Your task to perform on an android device: toggle priority inbox in the gmail app Image 0: 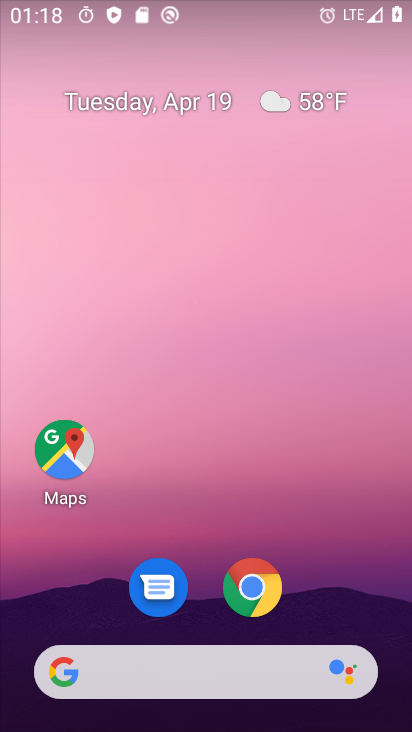
Step 0: drag from (330, 586) to (353, 122)
Your task to perform on an android device: toggle priority inbox in the gmail app Image 1: 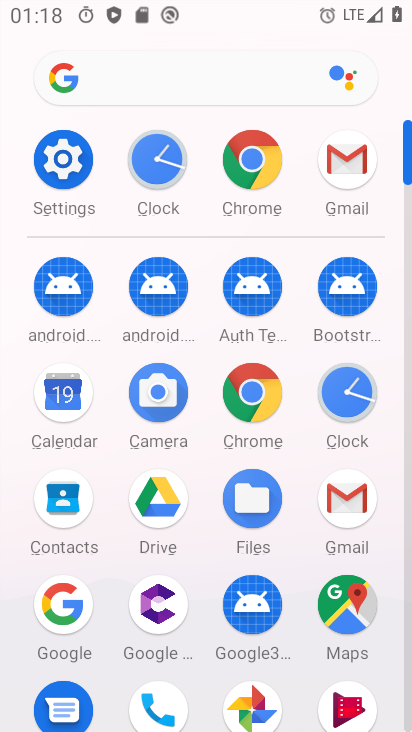
Step 1: click (336, 506)
Your task to perform on an android device: toggle priority inbox in the gmail app Image 2: 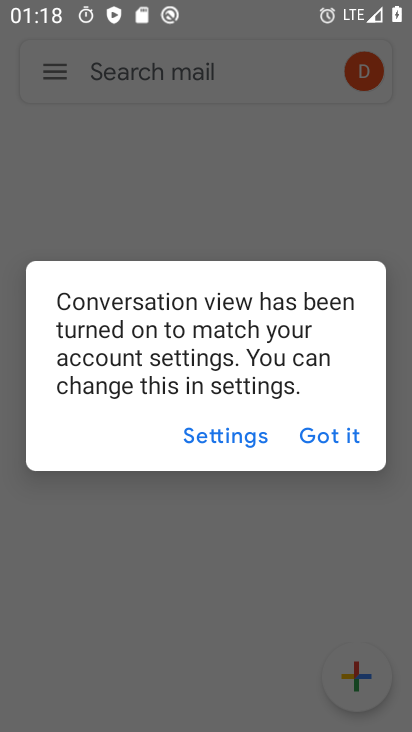
Step 2: click (349, 440)
Your task to perform on an android device: toggle priority inbox in the gmail app Image 3: 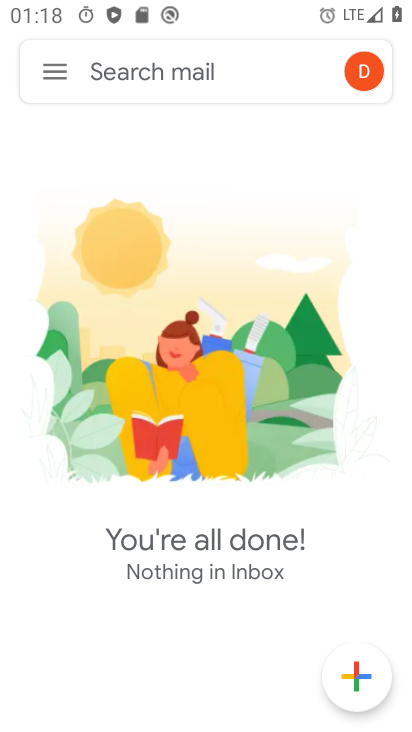
Step 3: click (40, 67)
Your task to perform on an android device: toggle priority inbox in the gmail app Image 4: 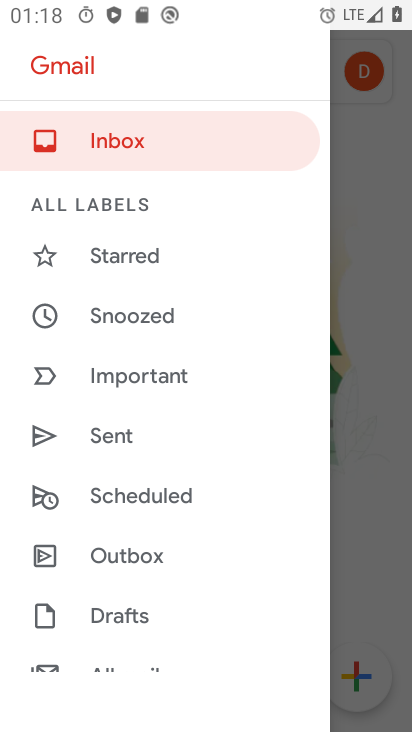
Step 4: drag from (186, 588) to (195, 310)
Your task to perform on an android device: toggle priority inbox in the gmail app Image 5: 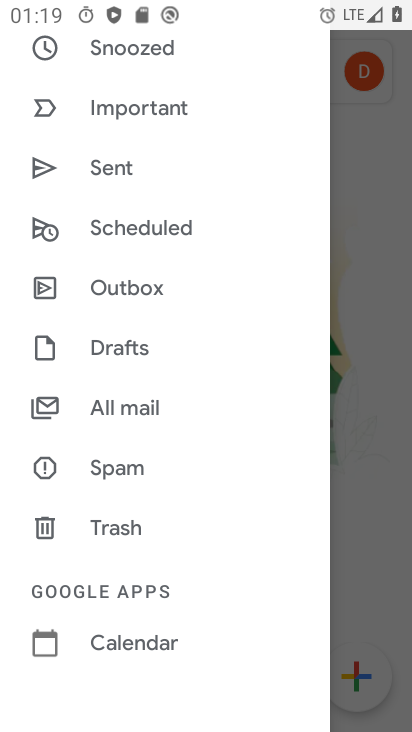
Step 5: drag from (260, 615) to (238, 230)
Your task to perform on an android device: toggle priority inbox in the gmail app Image 6: 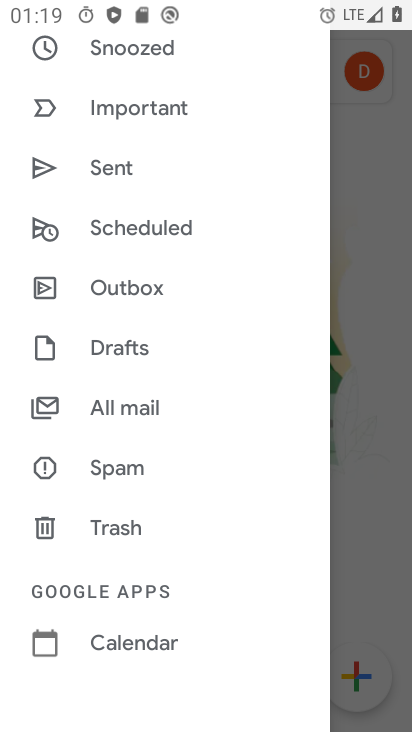
Step 6: drag from (142, 579) to (209, 310)
Your task to perform on an android device: toggle priority inbox in the gmail app Image 7: 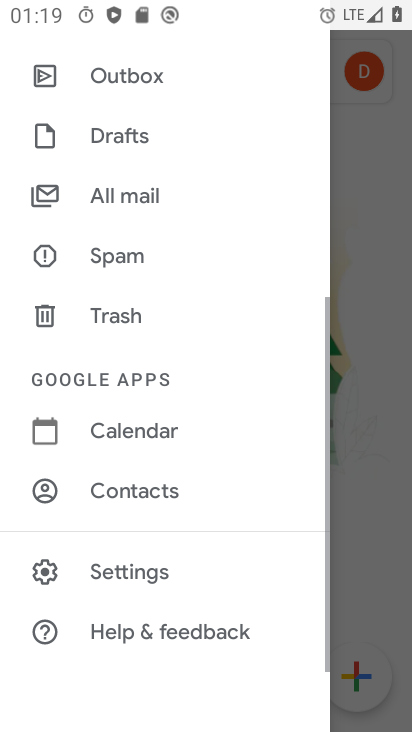
Step 7: click (127, 579)
Your task to perform on an android device: toggle priority inbox in the gmail app Image 8: 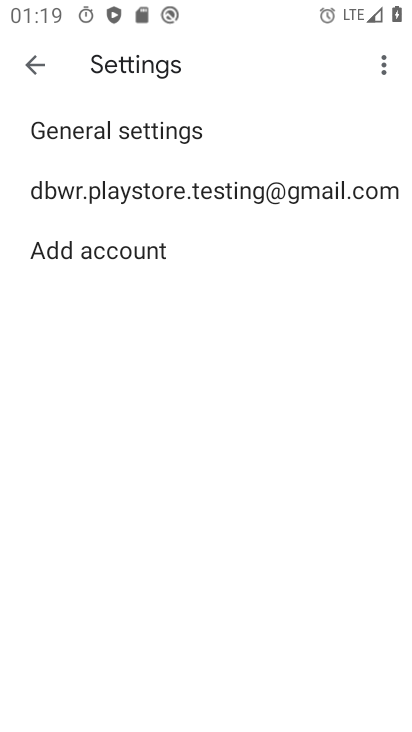
Step 8: click (312, 176)
Your task to perform on an android device: toggle priority inbox in the gmail app Image 9: 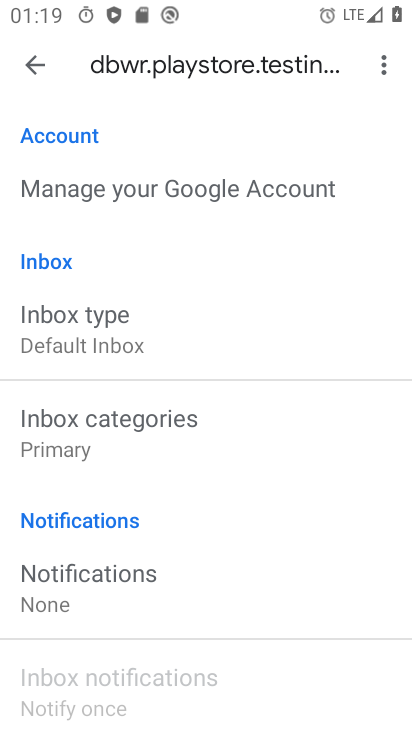
Step 9: click (106, 333)
Your task to perform on an android device: toggle priority inbox in the gmail app Image 10: 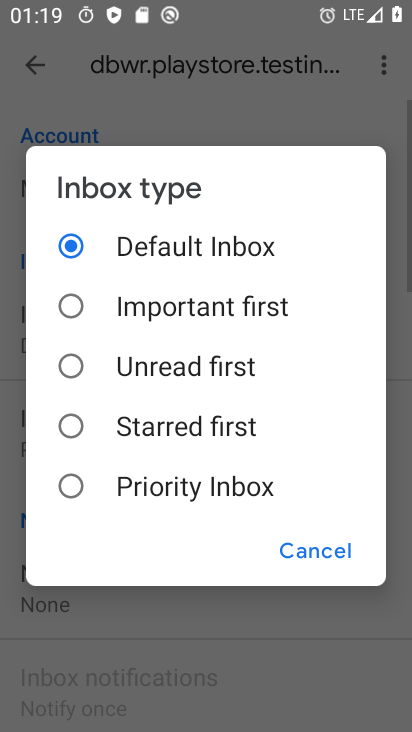
Step 10: click (148, 491)
Your task to perform on an android device: toggle priority inbox in the gmail app Image 11: 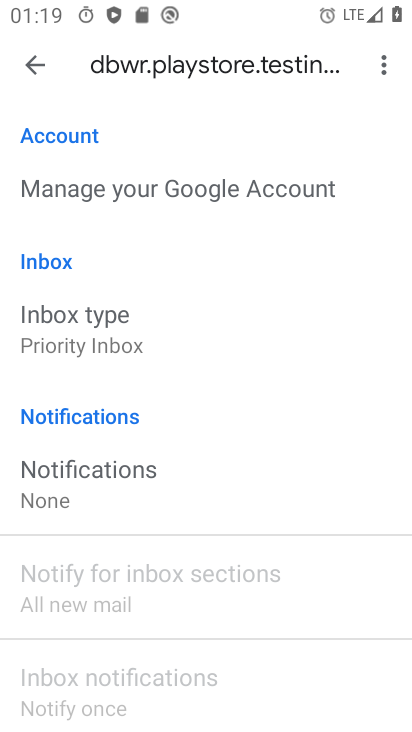
Step 11: task complete